Your task to perform on an android device: change the clock display to analog Image 0: 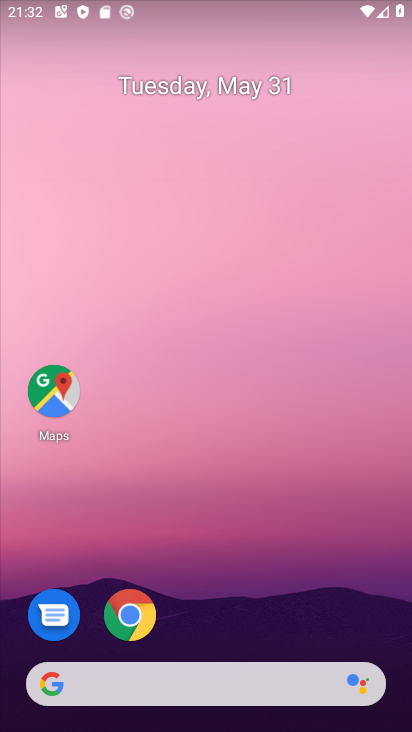
Step 0: press home button
Your task to perform on an android device: change the clock display to analog Image 1: 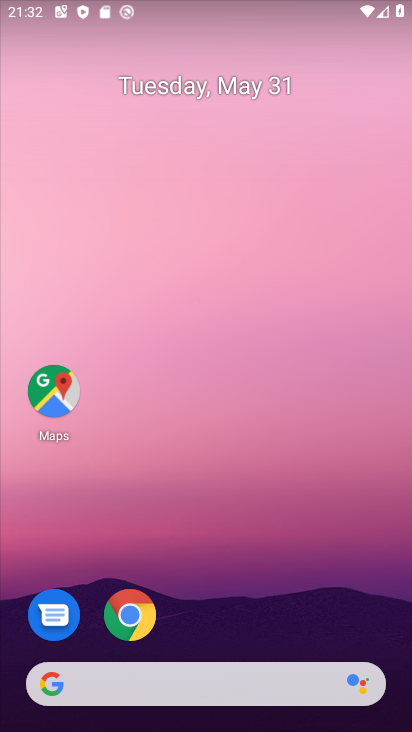
Step 1: drag from (275, 627) to (290, 276)
Your task to perform on an android device: change the clock display to analog Image 2: 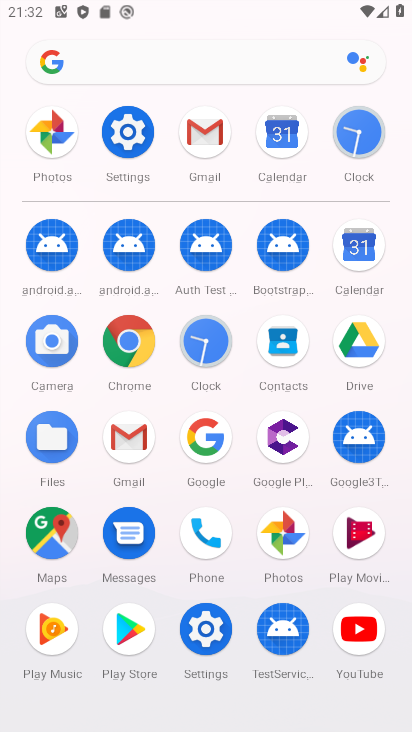
Step 2: click (346, 139)
Your task to perform on an android device: change the clock display to analog Image 3: 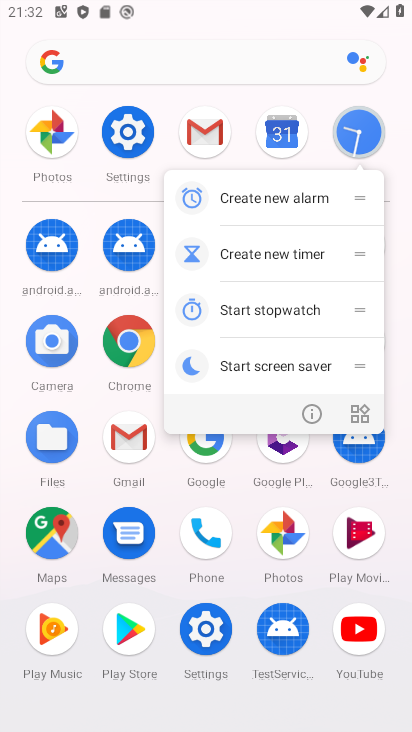
Step 3: click (349, 138)
Your task to perform on an android device: change the clock display to analog Image 4: 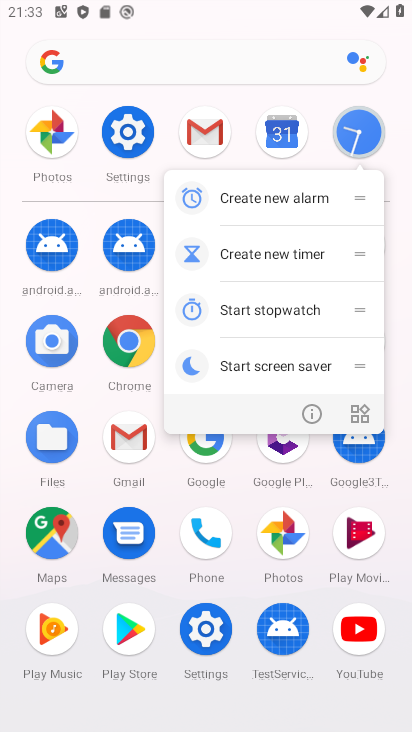
Step 4: click (352, 134)
Your task to perform on an android device: change the clock display to analog Image 5: 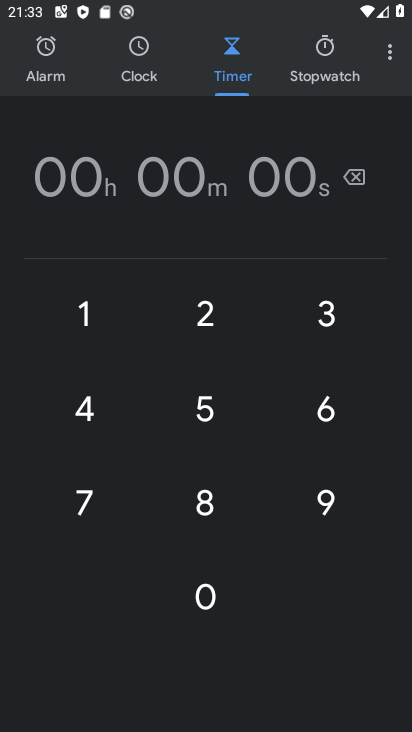
Step 5: click (389, 48)
Your task to perform on an android device: change the clock display to analog Image 6: 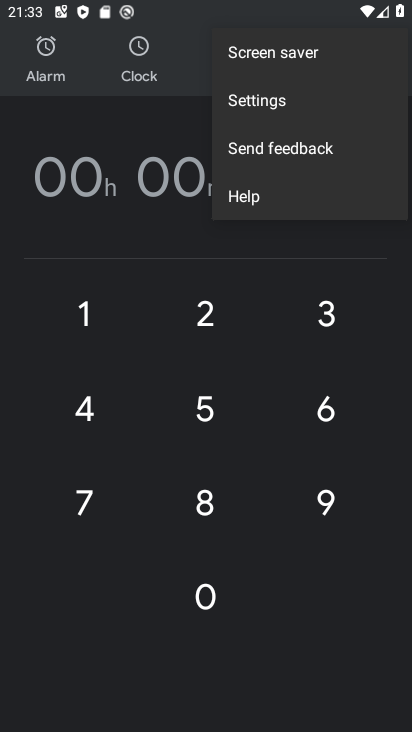
Step 6: click (297, 95)
Your task to perform on an android device: change the clock display to analog Image 7: 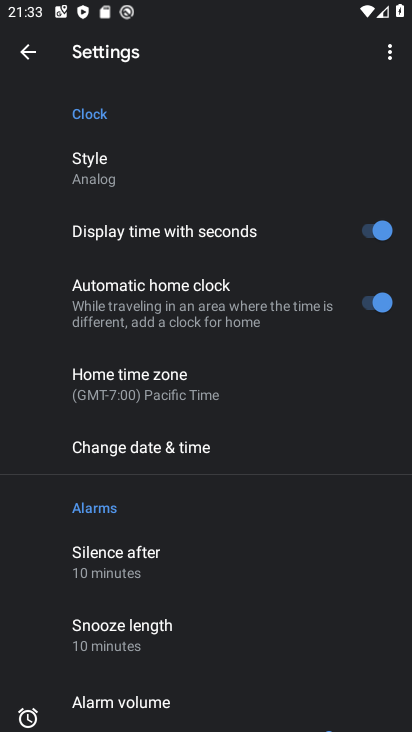
Step 7: task complete